Your task to perform on an android device: delete the emails in spam in the gmail app Image 0: 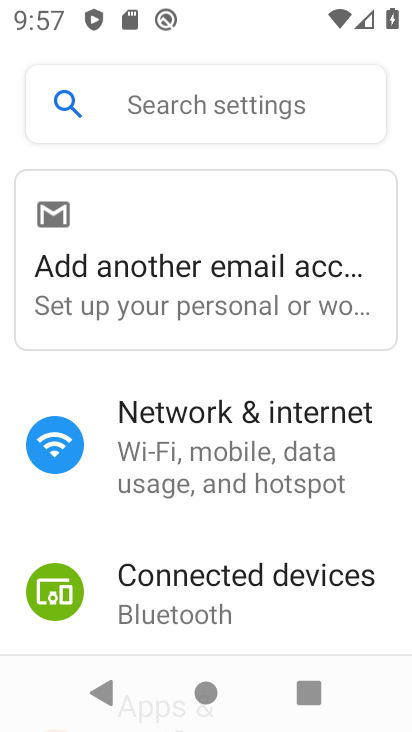
Step 0: press home button
Your task to perform on an android device: delete the emails in spam in the gmail app Image 1: 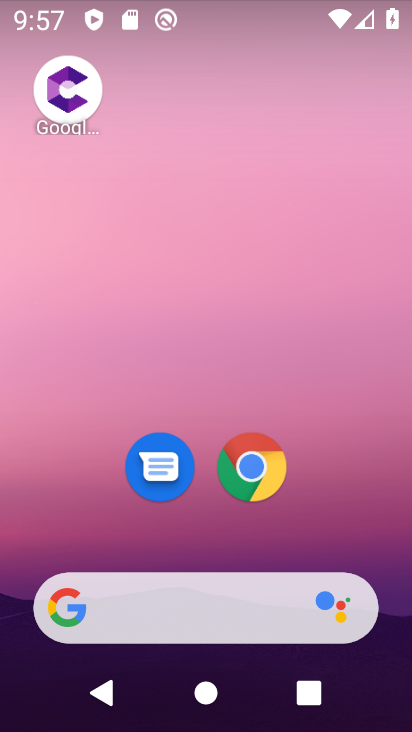
Step 1: drag from (362, 471) to (172, 6)
Your task to perform on an android device: delete the emails in spam in the gmail app Image 2: 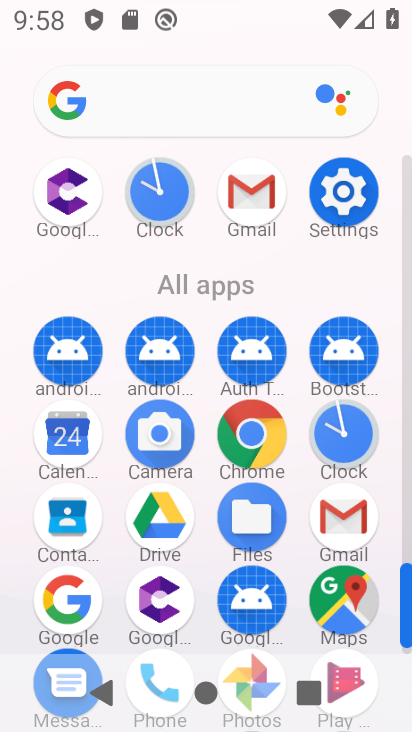
Step 2: click (256, 199)
Your task to perform on an android device: delete the emails in spam in the gmail app Image 3: 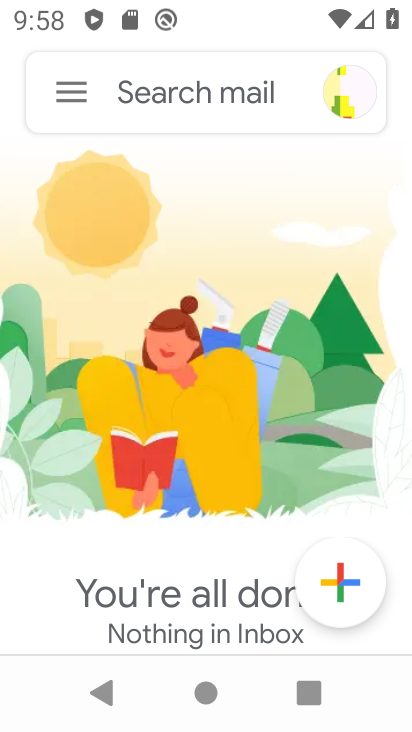
Step 3: click (77, 102)
Your task to perform on an android device: delete the emails in spam in the gmail app Image 4: 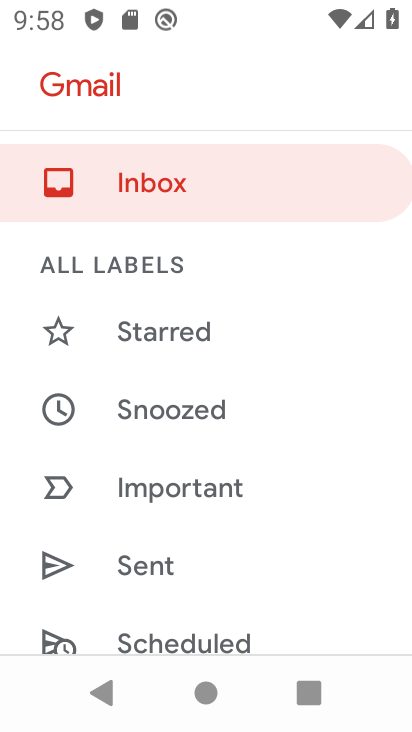
Step 4: drag from (226, 579) to (171, 158)
Your task to perform on an android device: delete the emails in spam in the gmail app Image 5: 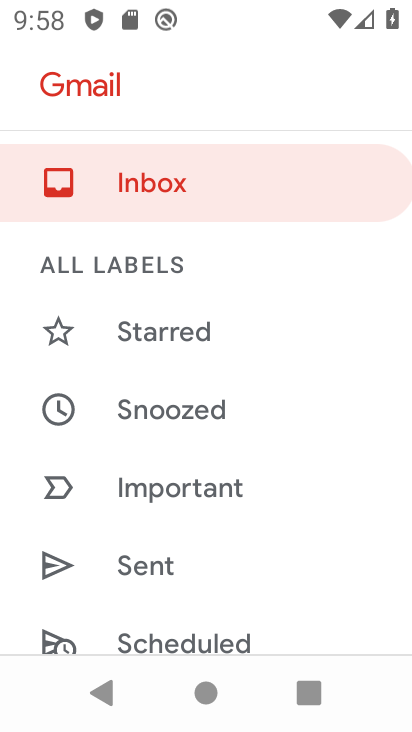
Step 5: drag from (245, 646) to (218, 55)
Your task to perform on an android device: delete the emails in spam in the gmail app Image 6: 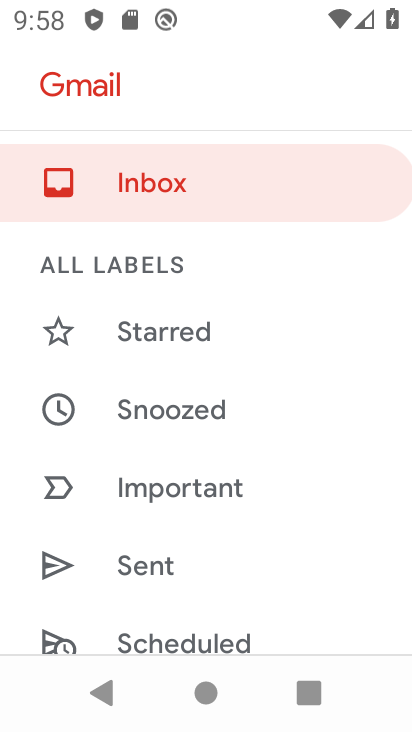
Step 6: drag from (210, 454) to (185, 71)
Your task to perform on an android device: delete the emails in spam in the gmail app Image 7: 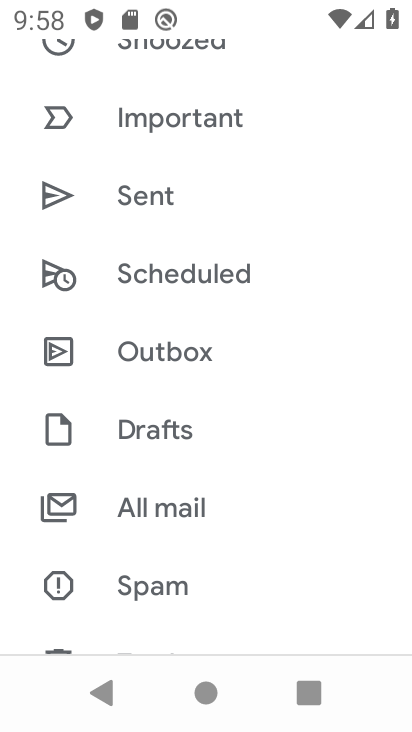
Step 7: drag from (221, 590) to (220, 209)
Your task to perform on an android device: delete the emails in spam in the gmail app Image 8: 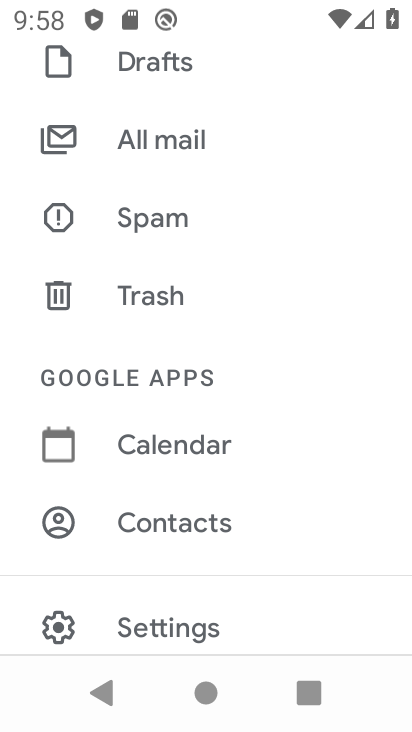
Step 8: click (217, 209)
Your task to perform on an android device: delete the emails in spam in the gmail app Image 9: 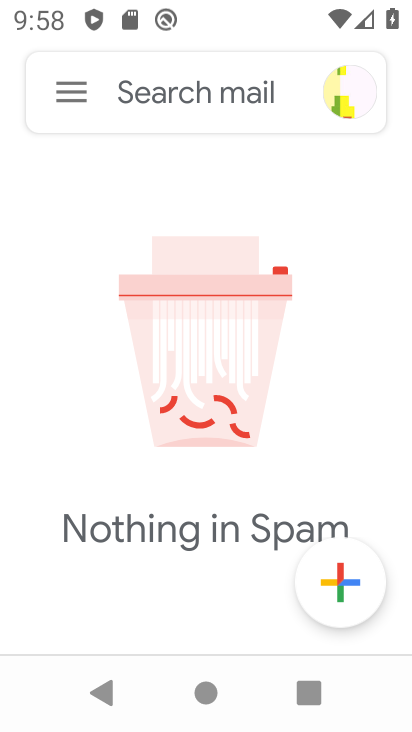
Step 9: task complete